Your task to perform on an android device: see sites visited before in the chrome app Image 0: 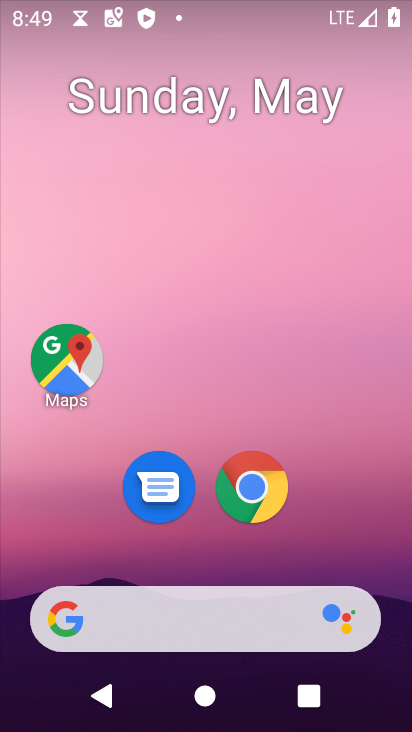
Step 0: drag from (328, 508) to (29, 201)
Your task to perform on an android device: see sites visited before in the chrome app Image 1: 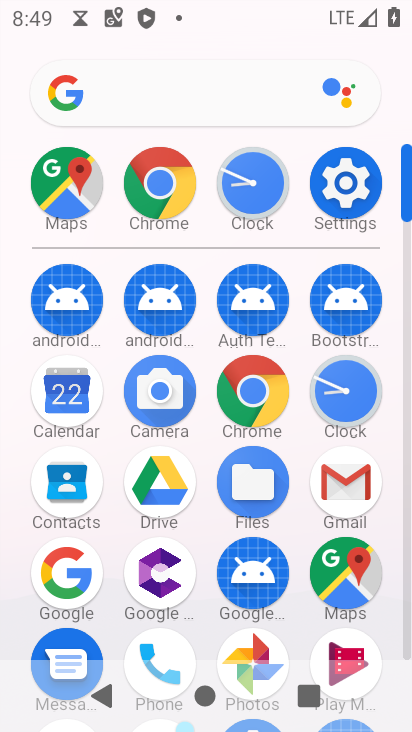
Step 1: click (149, 198)
Your task to perform on an android device: see sites visited before in the chrome app Image 2: 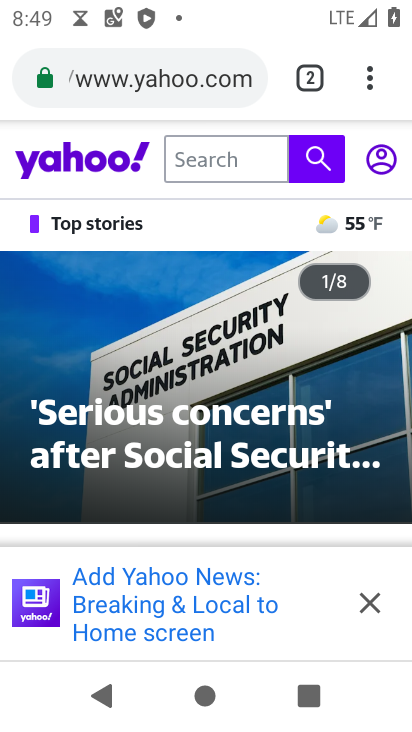
Step 2: task complete